Your task to perform on an android device: change the clock display to show seconds Image 0: 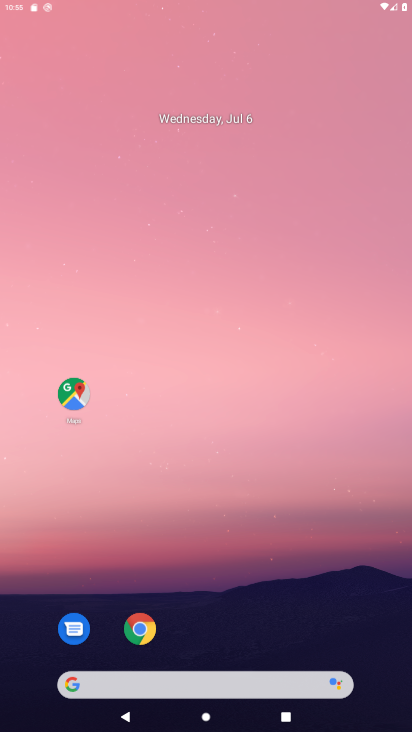
Step 0: press home button
Your task to perform on an android device: change the clock display to show seconds Image 1: 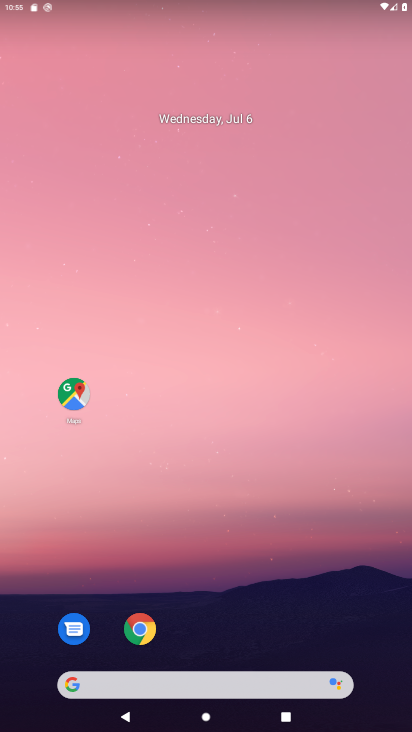
Step 1: drag from (219, 646) to (244, 84)
Your task to perform on an android device: change the clock display to show seconds Image 2: 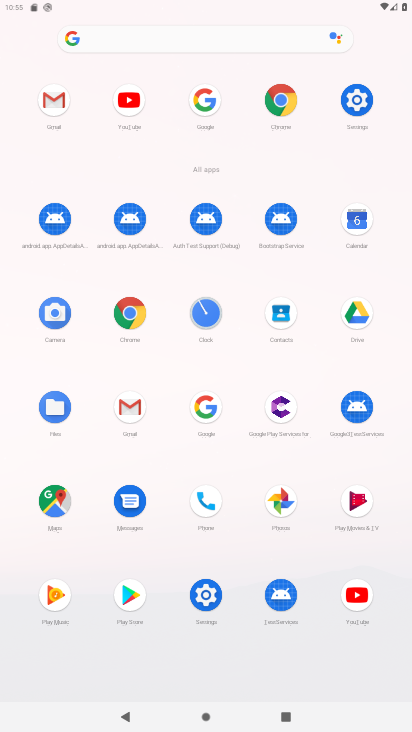
Step 2: click (202, 305)
Your task to perform on an android device: change the clock display to show seconds Image 3: 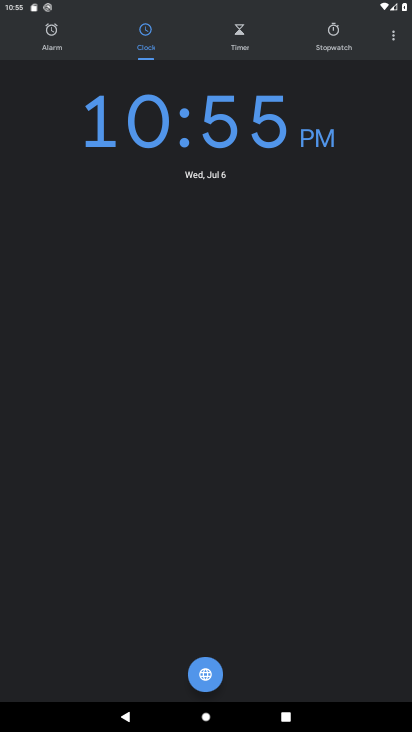
Step 3: click (394, 35)
Your task to perform on an android device: change the clock display to show seconds Image 4: 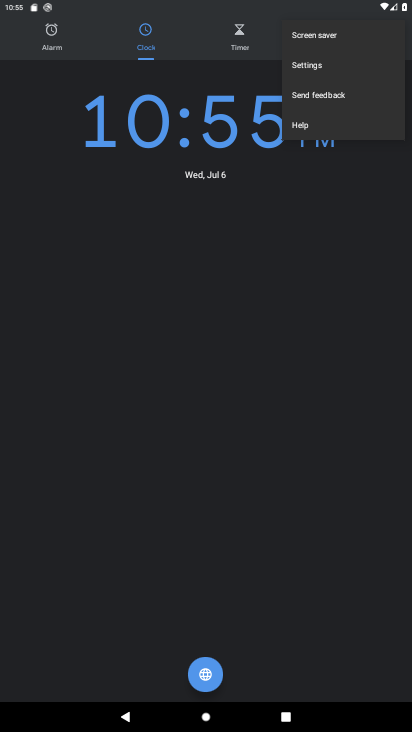
Step 4: click (336, 64)
Your task to perform on an android device: change the clock display to show seconds Image 5: 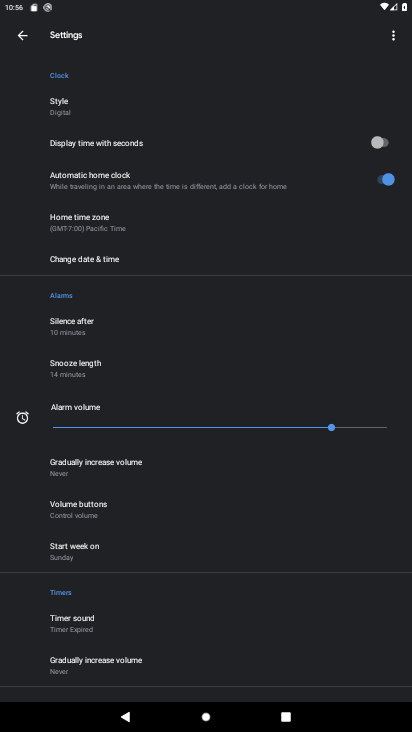
Step 5: click (383, 140)
Your task to perform on an android device: change the clock display to show seconds Image 6: 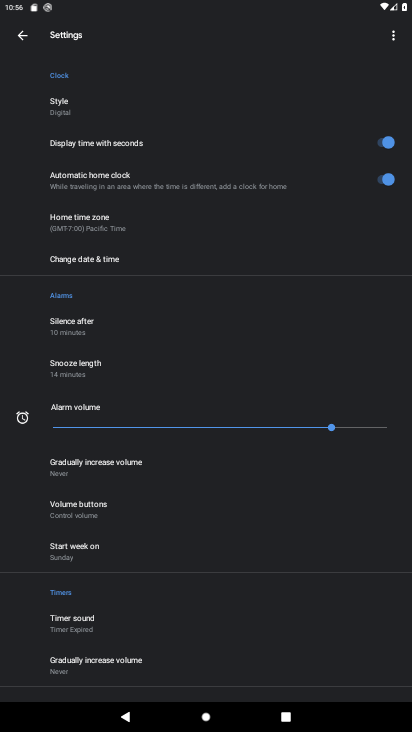
Step 6: task complete